Your task to perform on an android device: turn off picture-in-picture Image 0: 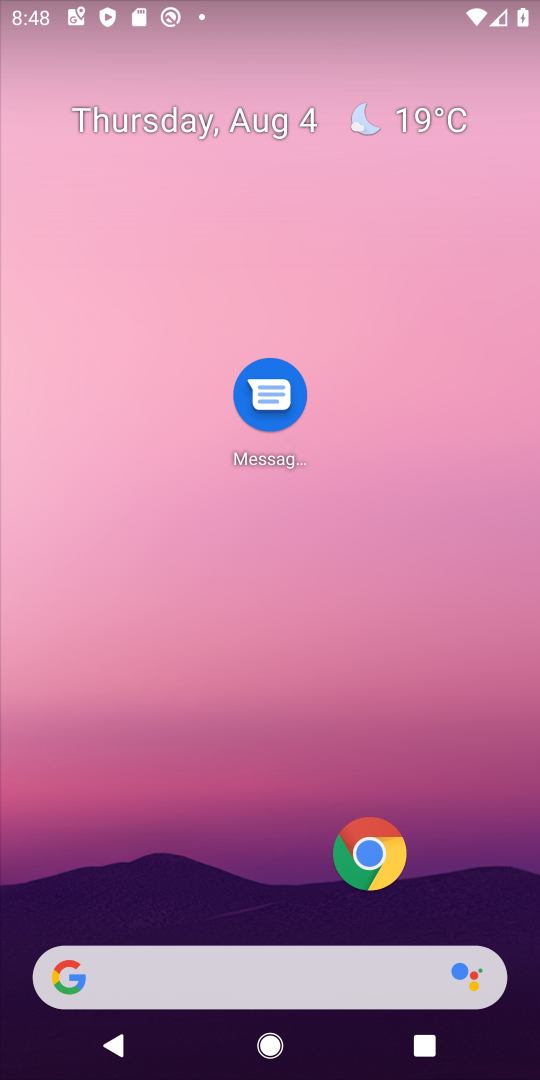
Step 0: click (359, 855)
Your task to perform on an android device: turn off picture-in-picture Image 1: 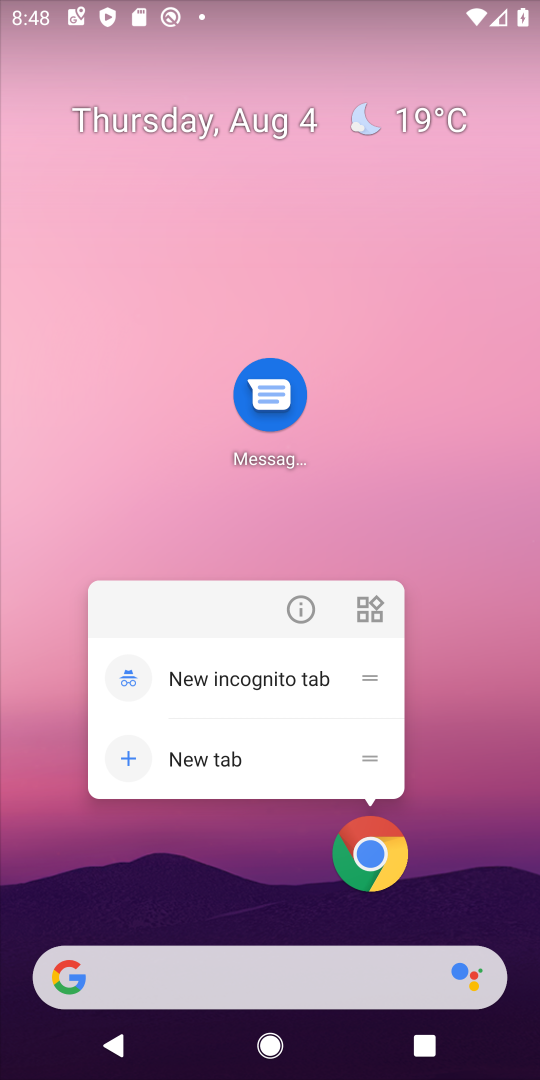
Step 1: click (309, 610)
Your task to perform on an android device: turn off picture-in-picture Image 2: 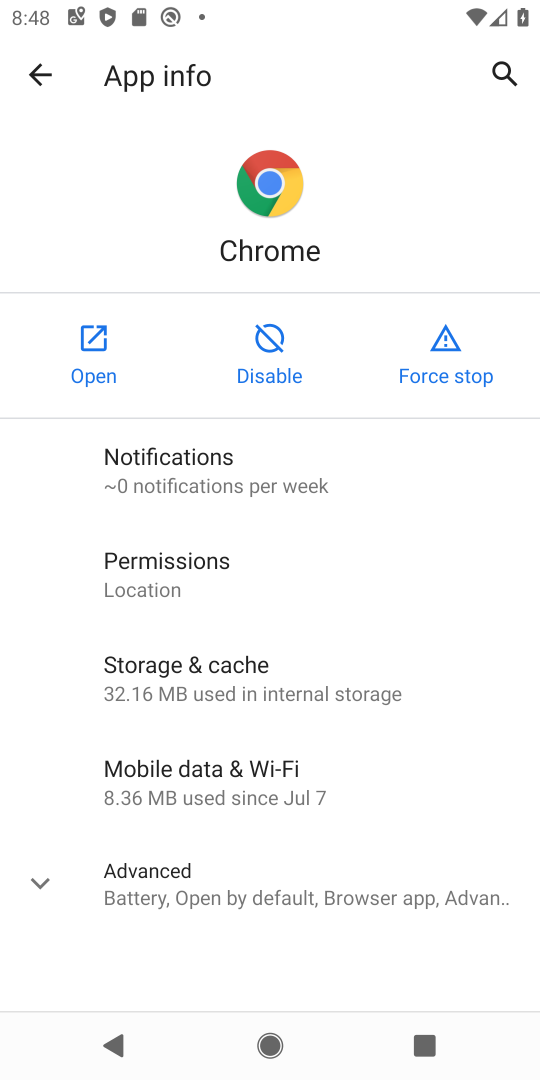
Step 2: click (161, 887)
Your task to perform on an android device: turn off picture-in-picture Image 3: 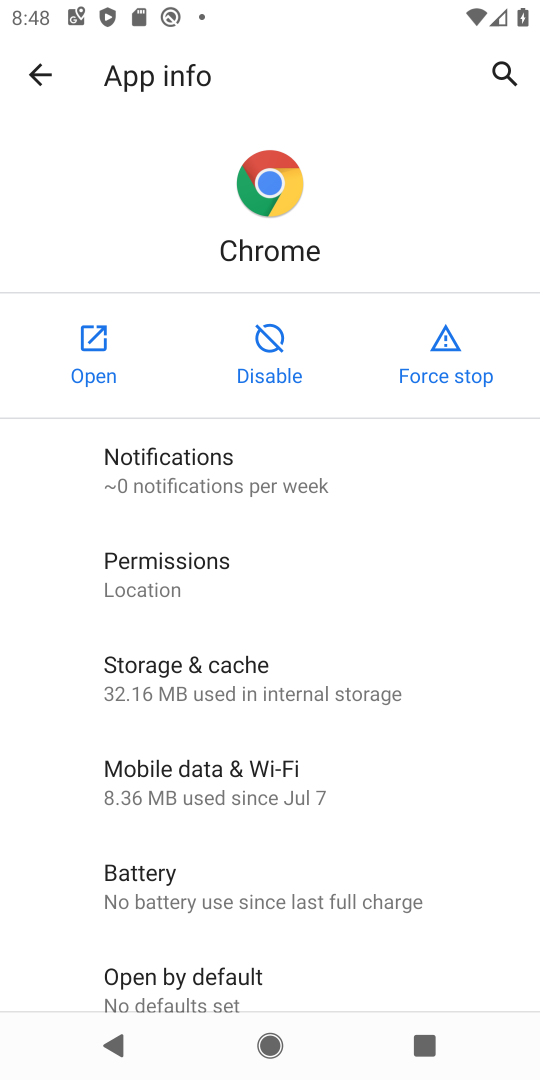
Step 3: drag from (234, 978) to (239, 426)
Your task to perform on an android device: turn off picture-in-picture Image 4: 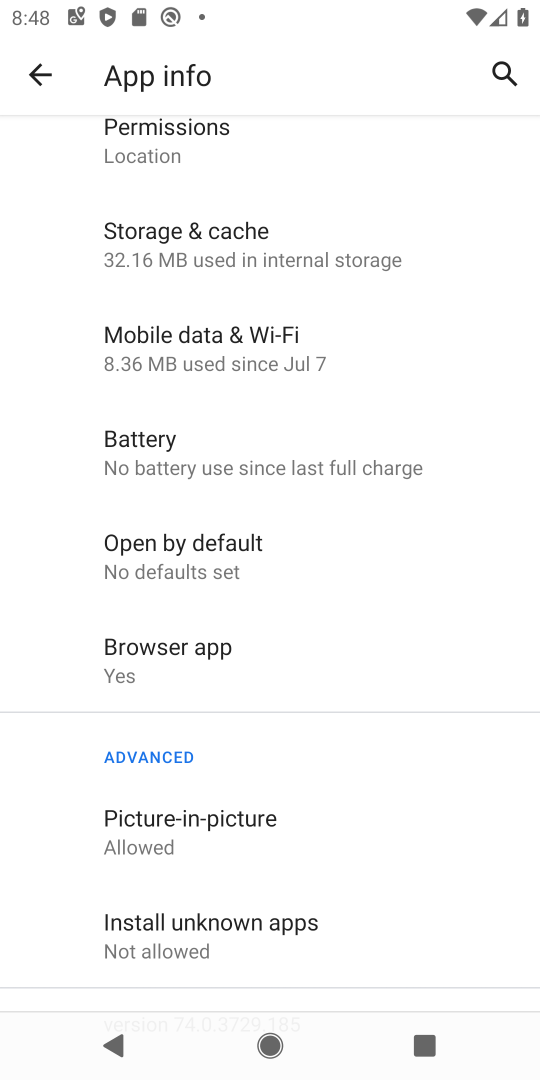
Step 4: click (189, 829)
Your task to perform on an android device: turn off picture-in-picture Image 5: 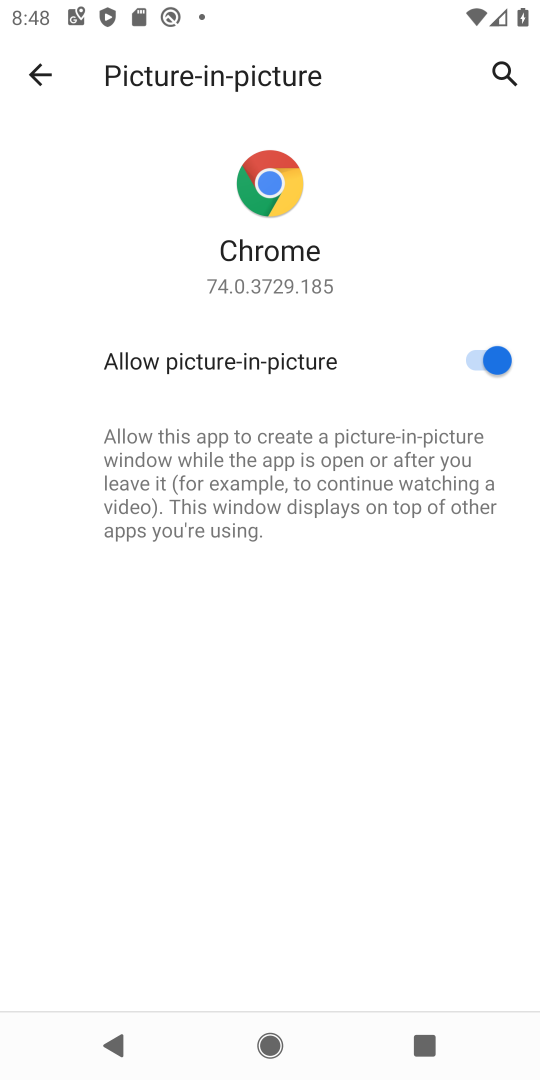
Step 5: click (496, 344)
Your task to perform on an android device: turn off picture-in-picture Image 6: 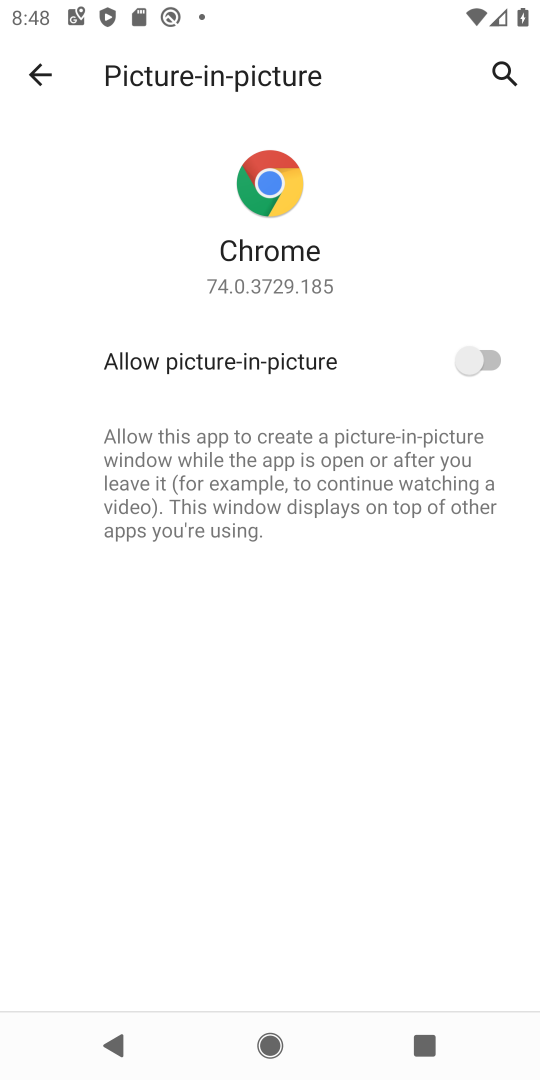
Step 6: task complete